Your task to perform on an android device: check storage Image 0: 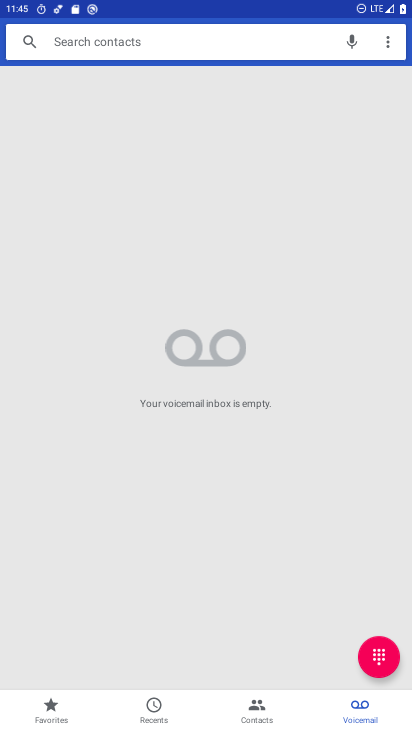
Step 0: drag from (367, 609) to (358, 556)
Your task to perform on an android device: check storage Image 1: 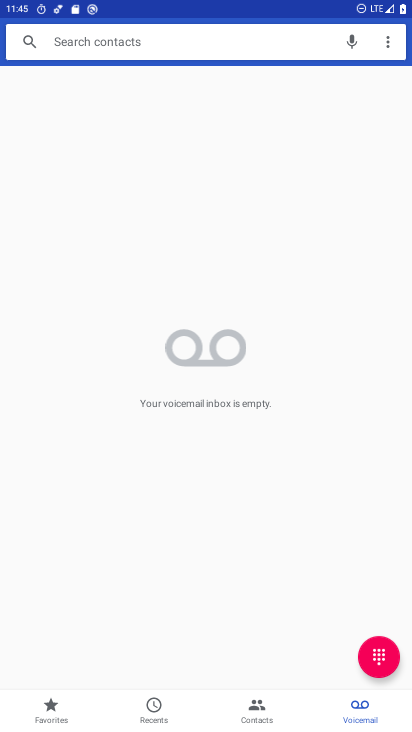
Step 1: press home button
Your task to perform on an android device: check storage Image 2: 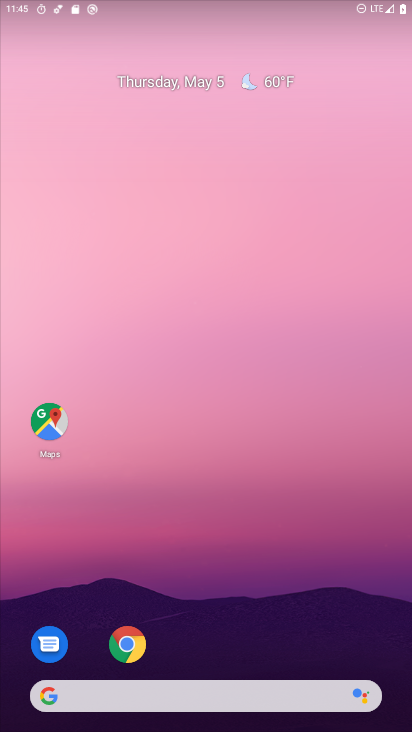
Step 2: drag from (374, 569) to (367, 77)
Your task to perform on an android device: check storage Image 3: 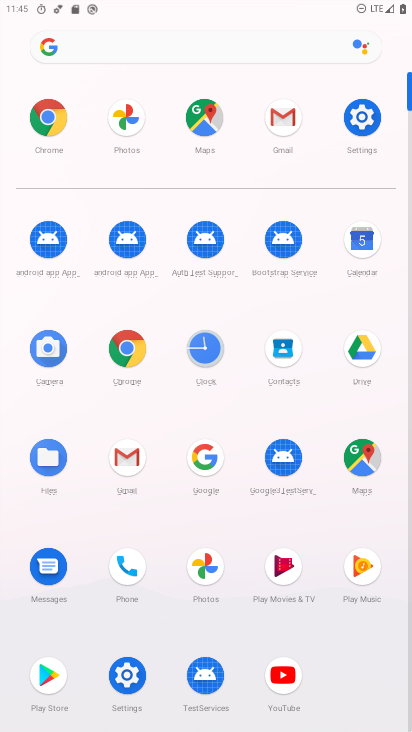
Step 3: click (361, 131)
Your task to perform on an android device: check storage Image 4: 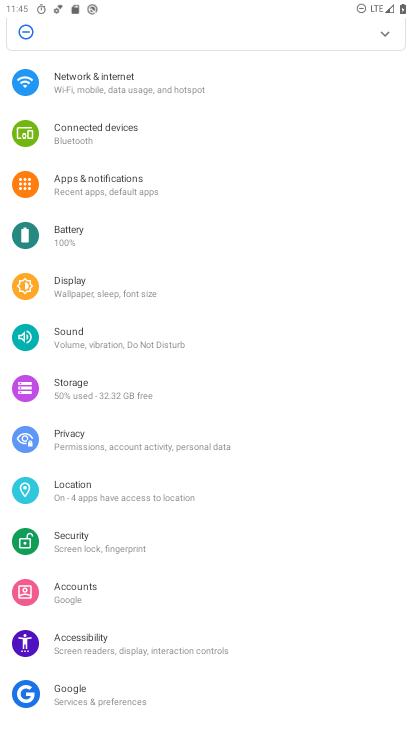
Step 4: click (77, 393)
Your task to perform on an android device: check storage Image 5: 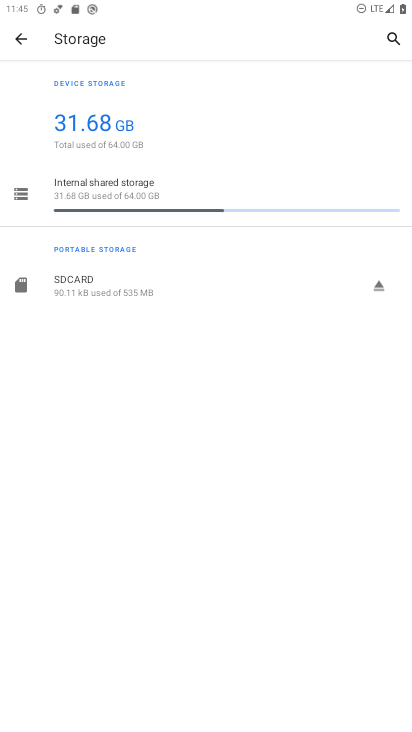
Step 5: click (25, 185)
Your task to perform on an android device: check storage Image 6: 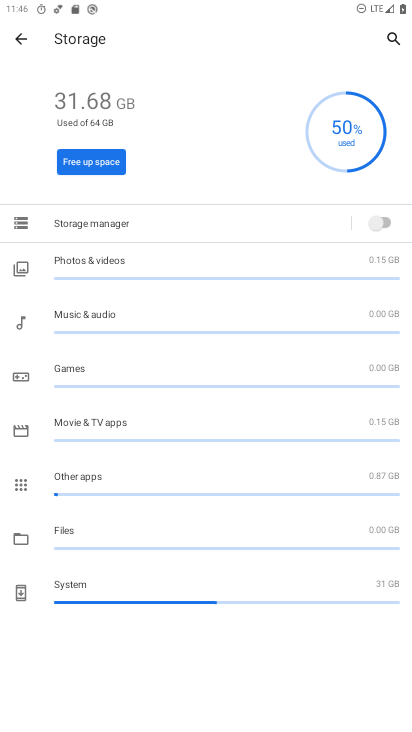
Step 6: task complete